Your task to perform on an android device: What's the weather going to be this weekend? Image 0: 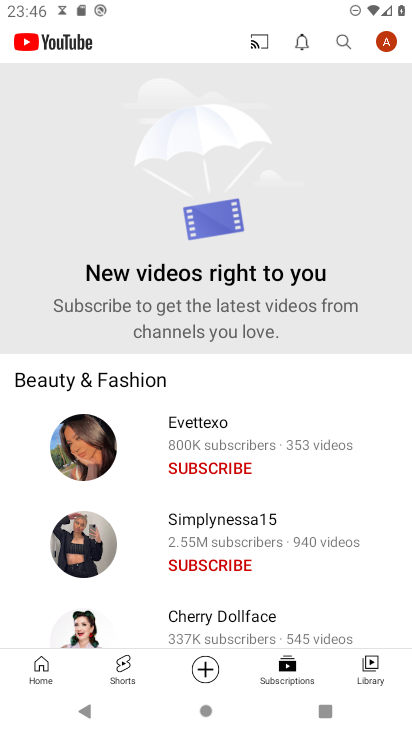
Step 0: press home button
Your task to perform on an android device: What's the weather going to be this weekend? Image 1: 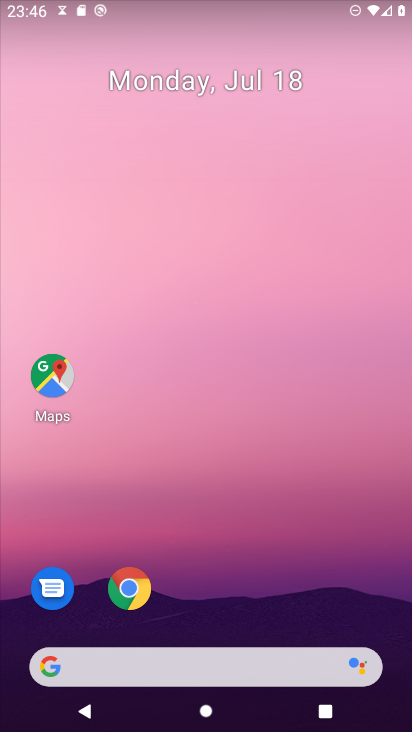
Step 1: click (55, 670)
Your task to perform on an android device: What's the weather going to be this weekend? Image 2: 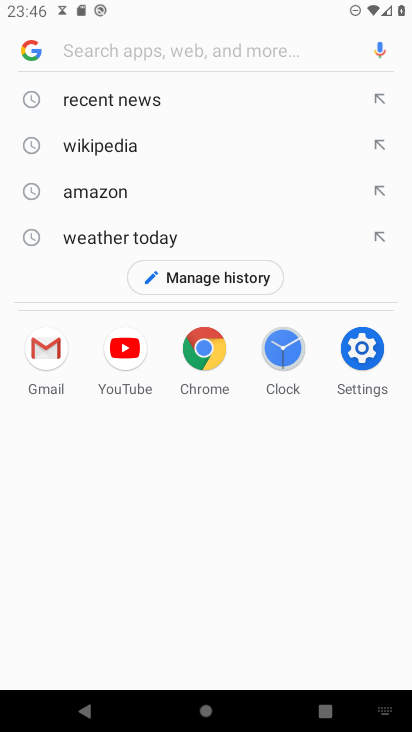
Step 2: type "weather going to be this weekend"
Your task to perform on an android device: What's the weather going to be this weekend? Image 3: 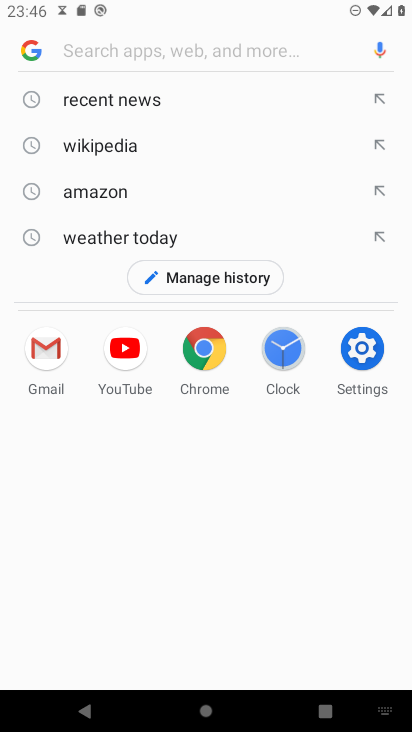
Step 3: click (91, 47)
Your task to perform on an android device: What's the weather going to be this weekend? Image 4: 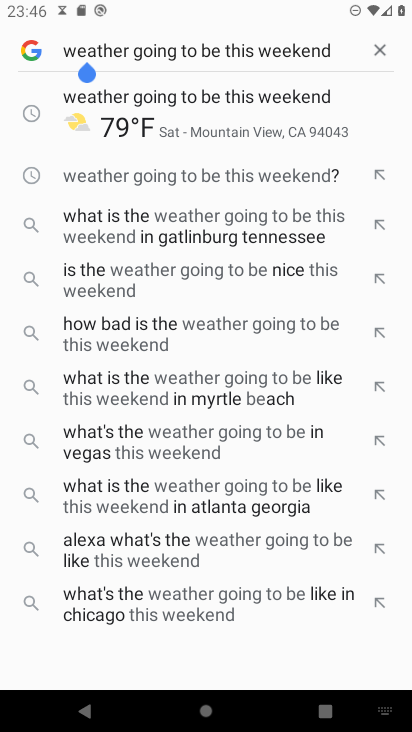
Step 4: press enter
Your task to perform on an android device: What's the weather going to be this weekend? Image 5: 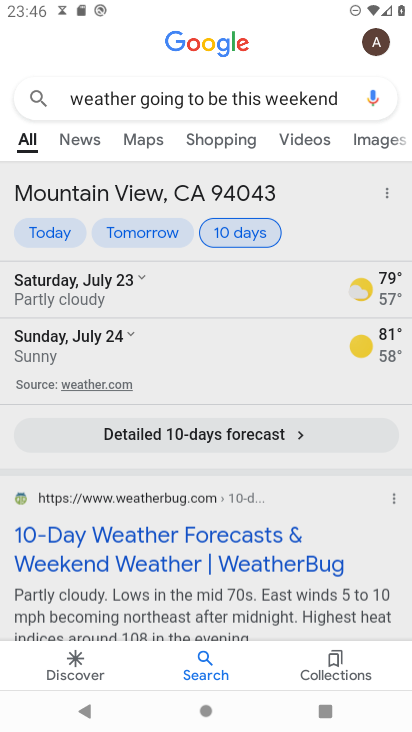
Step 5: task complete